Your task to perform on an android device: Search for 12ft 120W LED tube light on home depot Image 0: 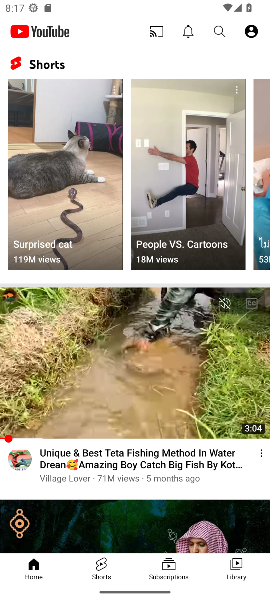
Step 0: press home button
Your task to perform on an android device: Search for 12ft 120W LED tube light on home depot Image 1: 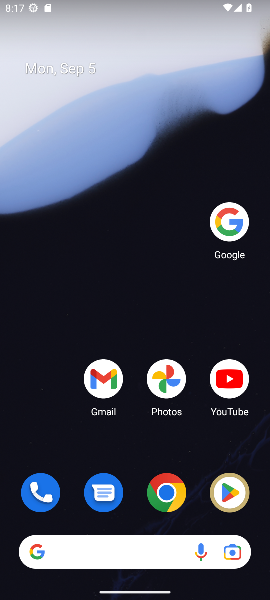
Step 1: click (233, 217)
Your task to perform on an android device: Search for 12ft 120W LED tube light on home depot Image 2: 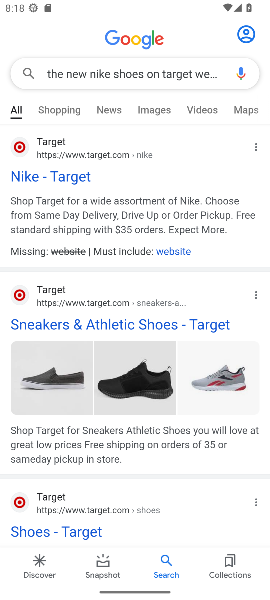
Step 2: click (164, 69)
Your task to perform on an android device: Search for 12ft 120W LED tube light on home depot Image 3: 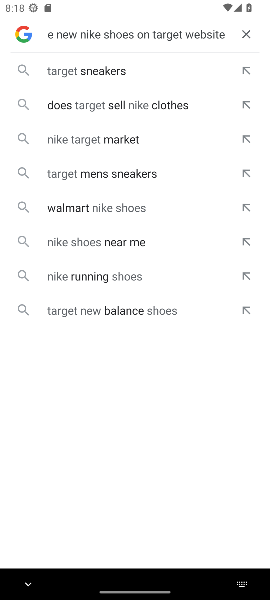
Step 3: click (247, 28)
Your task to perform on an android device: Search for 12ft 120W LED tube light on home depot Image 4: 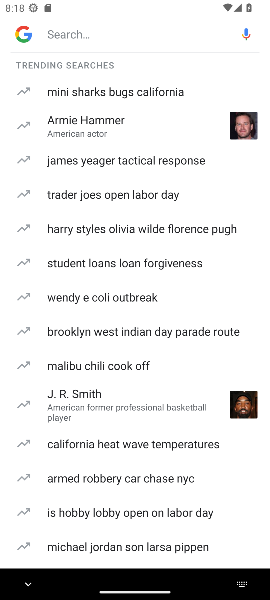
Step 4: click (118, 19)
Your task to perform on an android device: Search for 12ft 120W LED tube light on home depot Image 5: 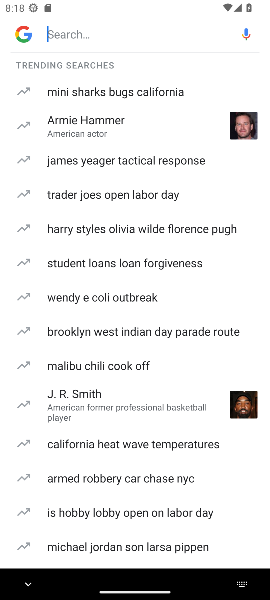
Step 5: type "12ft 120W LED tube light on home depot "
Your task to perform on an android device: Search for 12ft 120W LED tube light on home depot Image 6: 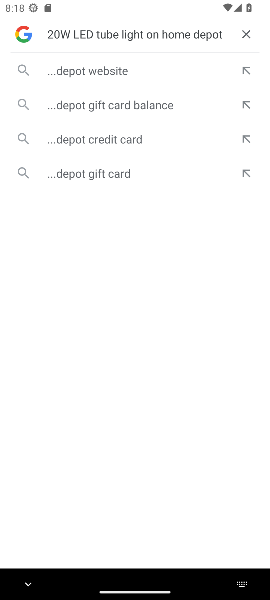
Step 6: click (127, 63)
Your task to perform on an android device: Search for 12ft 120W LED tube light on home depot Image 7: 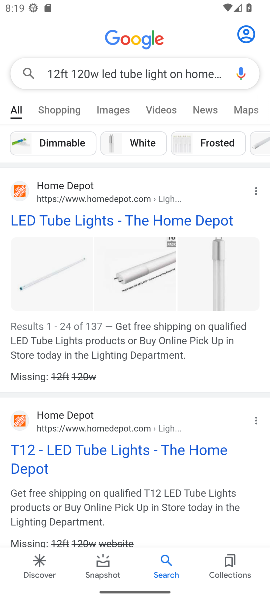
Step 7: click (112, 274)
Your task to perform on an android device: Search for 12ft 120W LED tube light on home depot Image 8: 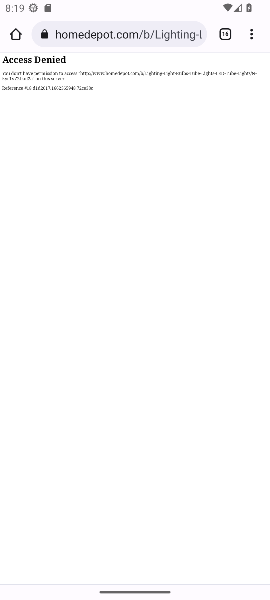
Step 8: task complete